Your task to perform on an android device: Go to sound settings Image 0: 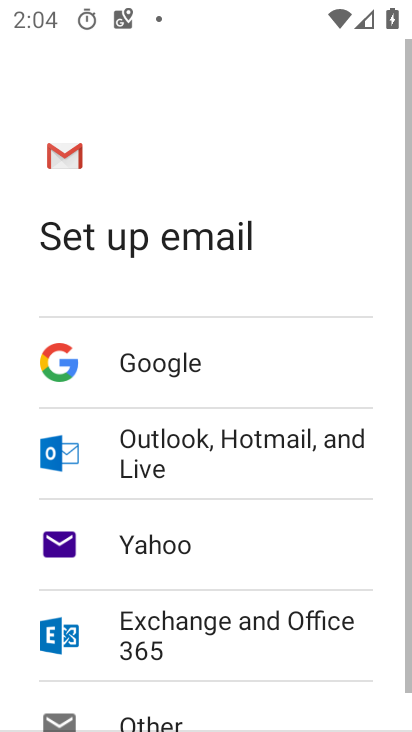
Step 0: press home button
Your task to perform on an android device: Go to sound settings Image 1: 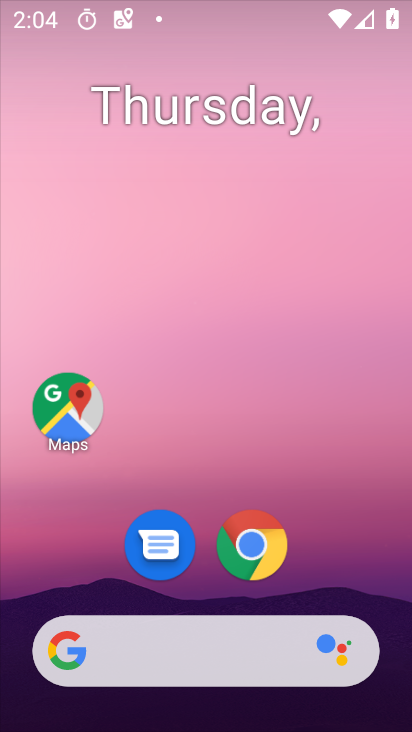
Step 1: drag from (209, 720) to (209, 165)
Your task to perform on an android device: Go to sound settings Image 2: 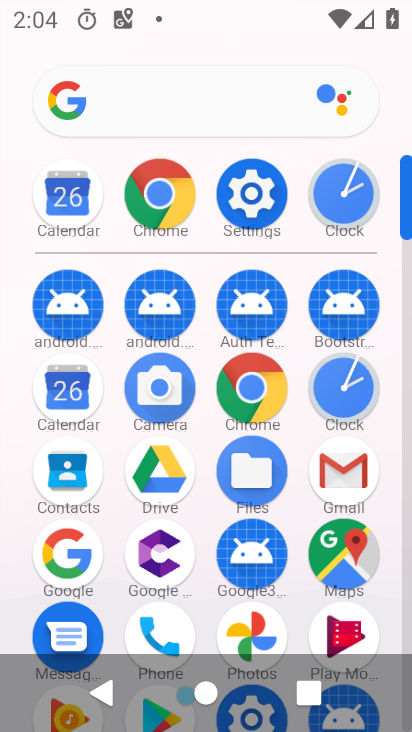
Step 2: click (256, 192)
Your task to perform on an android device: Go to sound settings Image 3: 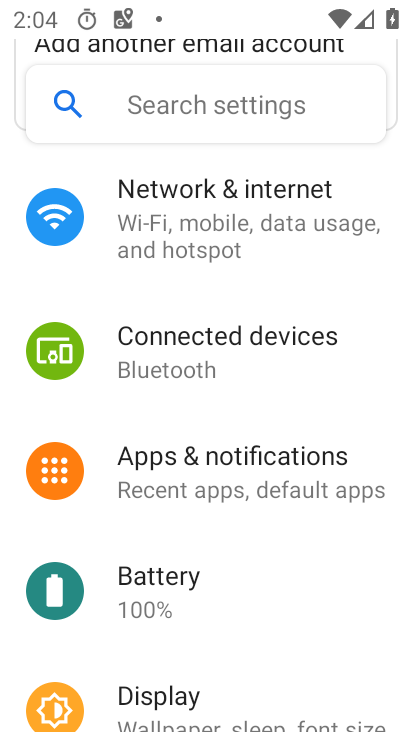
Step 3: drag from (174, 647) to (197, 262)
Your task to perform on an android device: Go to sound settings Image 4: 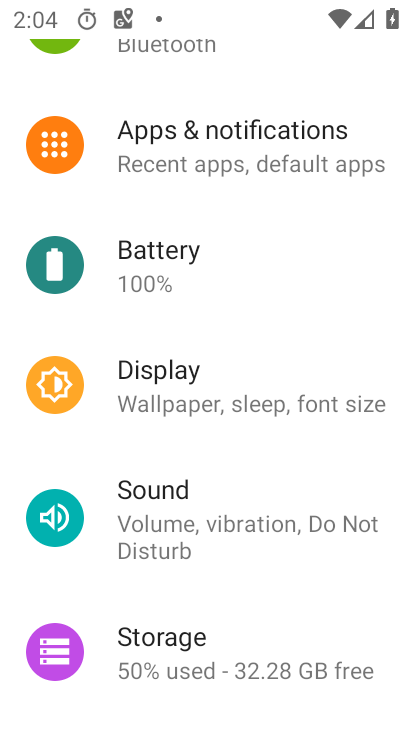
Step 4: click (169, 521)
Your task to perform on an android device: Go to sound settings Image 5: 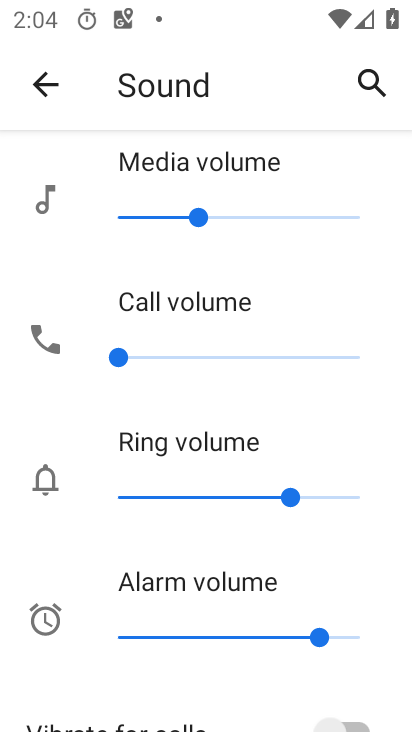
Step 5: task complete